Your task to perform on an android device: turn off airplane mode Image 0: 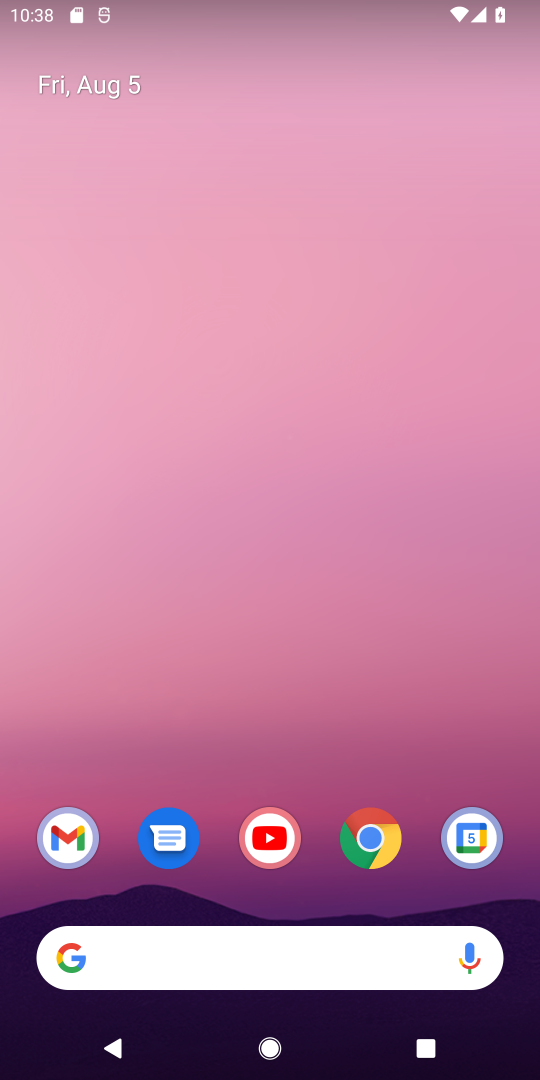
Step 0: task complete